Your task to perform on an android device: turn notification dots on Image 0: 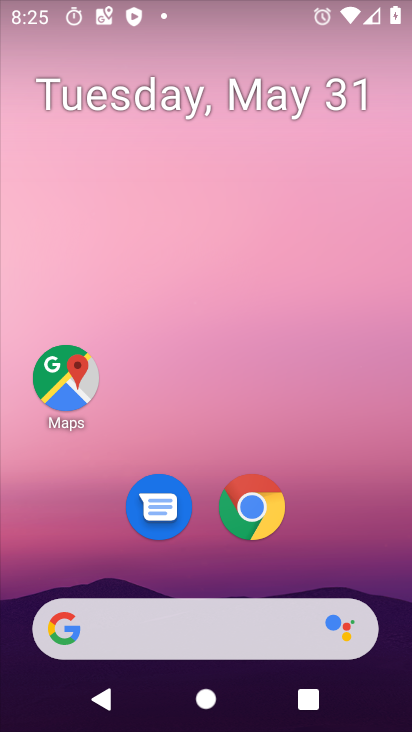
Step 0: drag from (343, 531) to (237, 14)
Your task to perform on an android device: turn notification dots on Image 1: 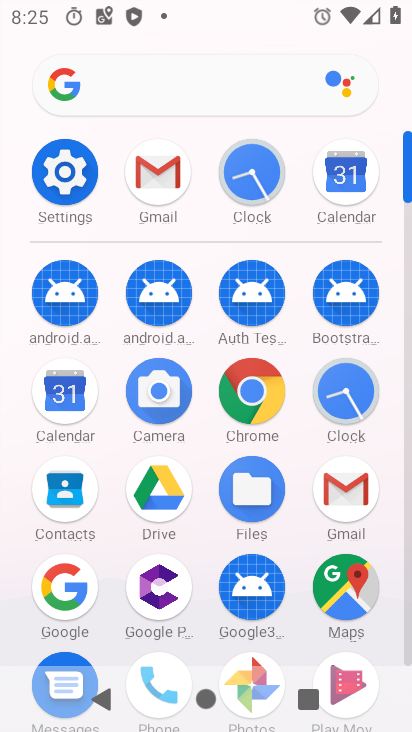
Step 1: click (67, 176)
Your task to perform on an android device: turn notification dots on Image 2: 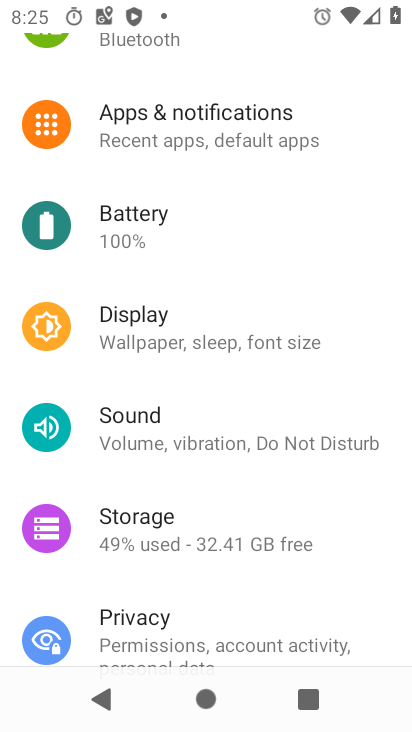
Step 2: click (209, 110)
Your task to perform on an android device: turn notification dots on Image 3: 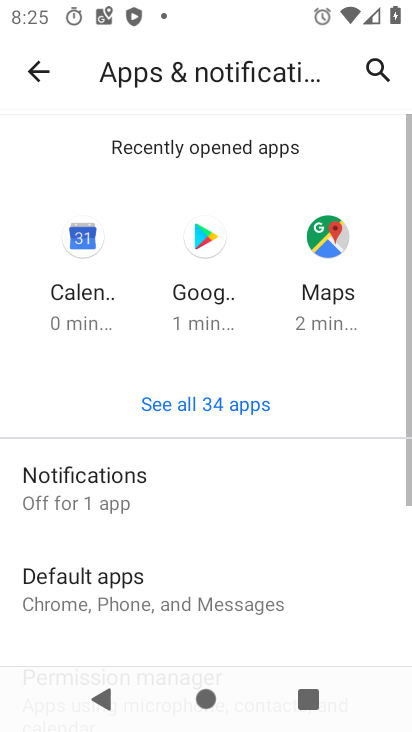
Step 3: drag from (215, 554) to (203, 247)
Your task to perform on an android device: turn notification dots on Image 4: 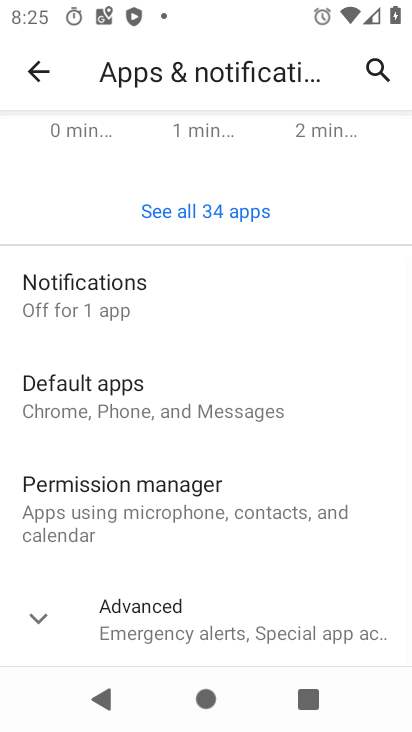
Step 4: click (95, 287)
Your task to perform on an android device: turn notification dots on Image 5: 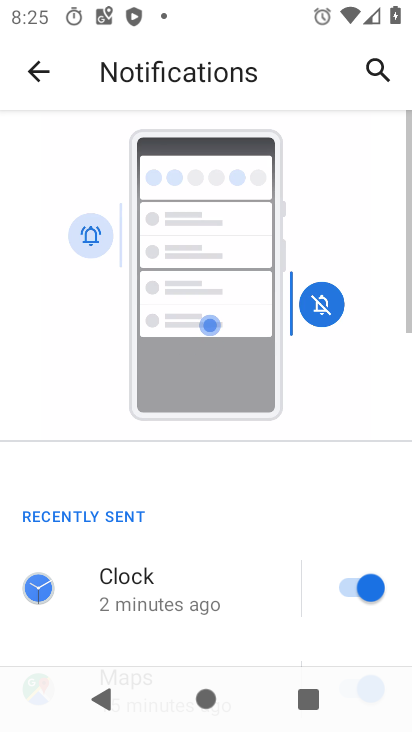
Step 5: drag from (167, 580) to (182, 196)
Your task to perform on an android device: turn notification dots on Image 6: 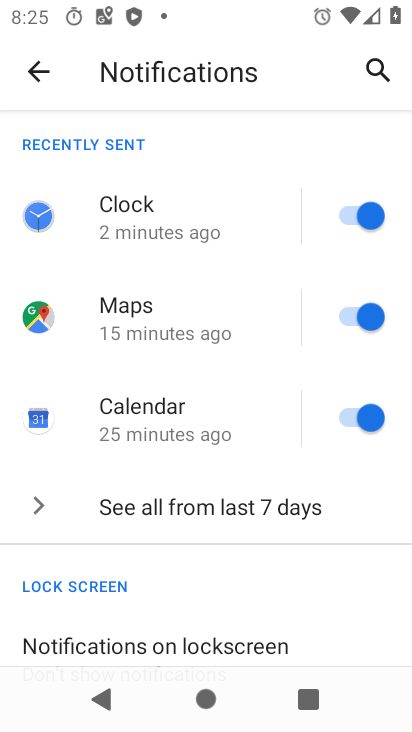
Step 6: drag from (152, 512) to (156, 158)
Your task to perform on an android device: turn notification dots on Image 7: 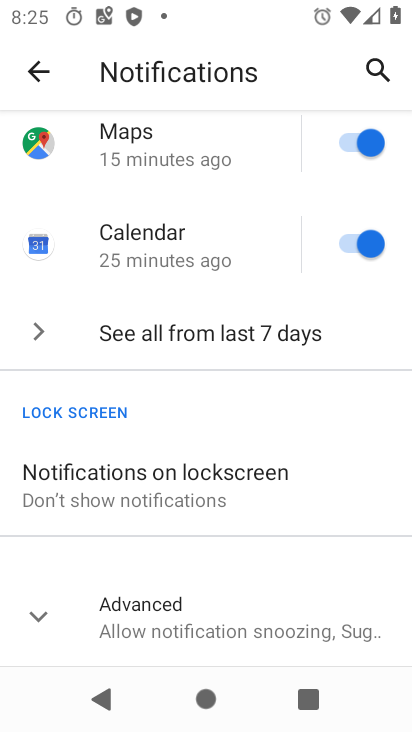
Step 7: click (28, 626)
Your task to perform on an android device: turn notification dots on Image 8: 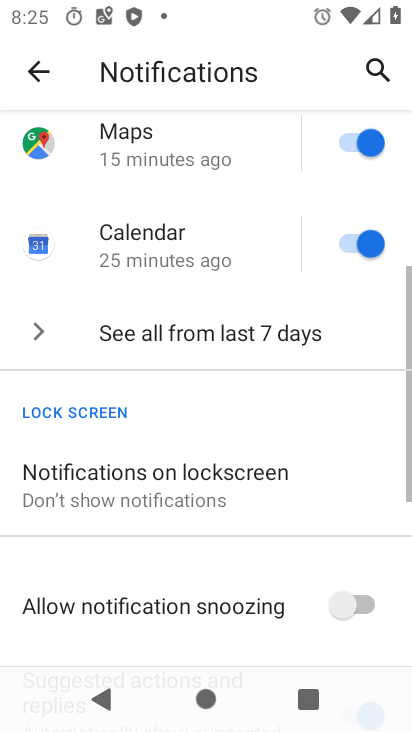
Step 8: task complete